Your task to perform on an android device: toggle show notifications on the lock screen Image 0: 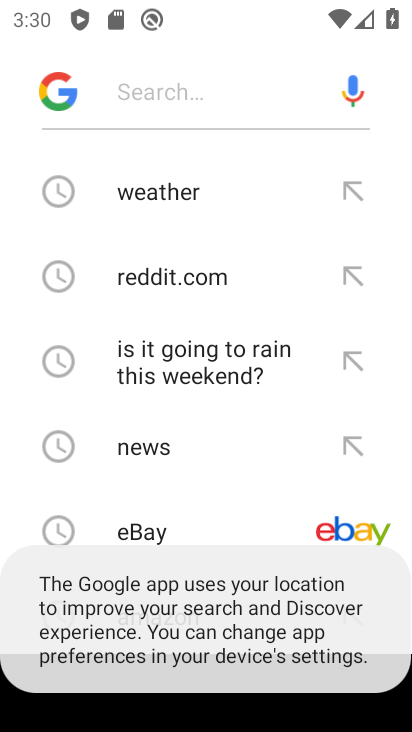
Step 0: press home button
Your task to perform on an android device: toggle show notifications on the lock screen Image 1: 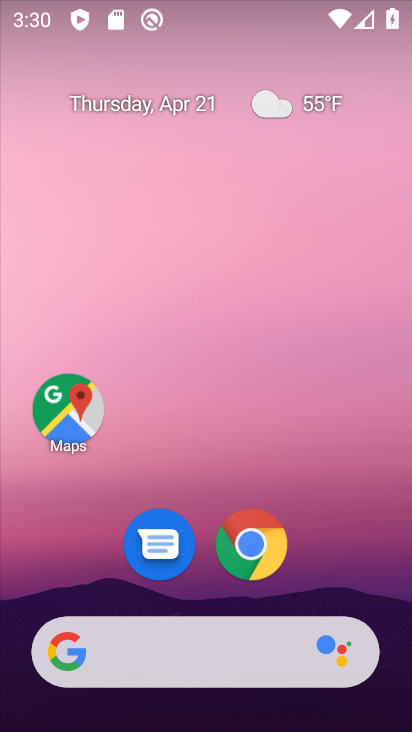
Step 1: drag from (244, 595) to (241, 56)
Your task to perform on an android device: toggle show notifications on the lock screen Image 2: 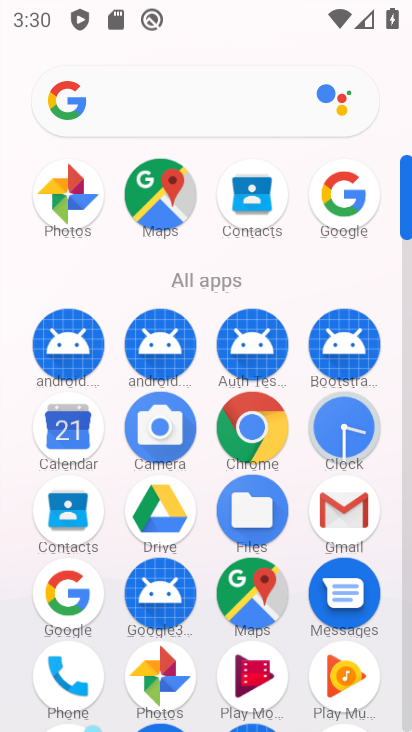
Step 2: drag from (174, 601) to (188, 151)
Your task to perform on an android device: toggle show notifications on the lock screen Image 3: 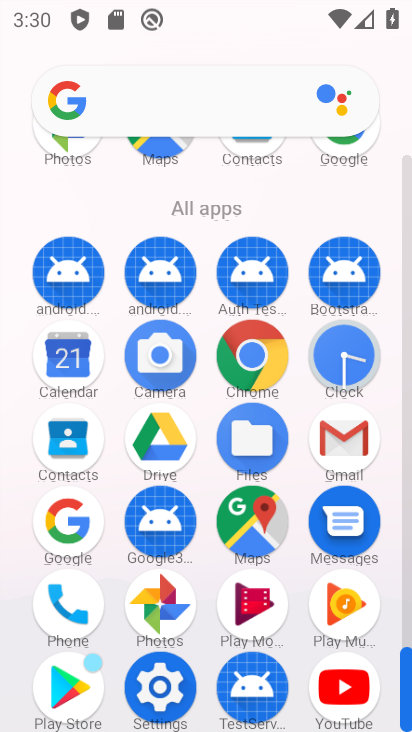
Step 3: click (170, 680)
Your task to perform on an android device: toggle show notifications on the lock screen Image 4: 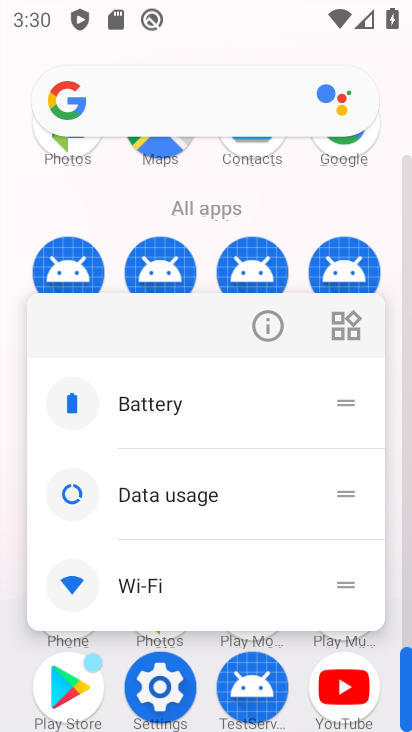
Step 4: click (170, 680)
Your task to perform on an android device: toggle show notifications on the lock screen Image 5: 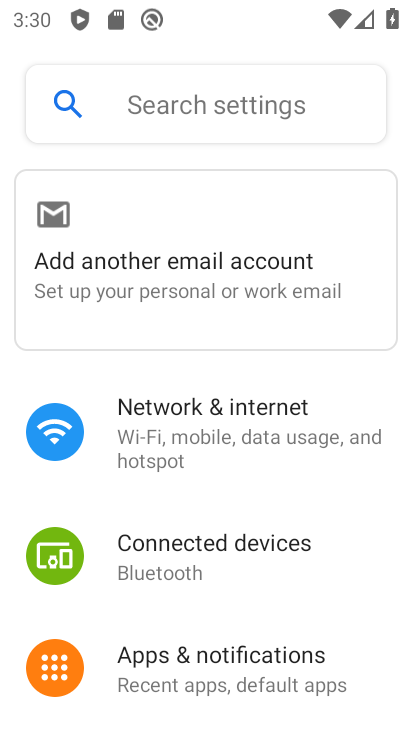
Step 5: drag from (202, 616) to (263, 276)
Your task to perform on an android device: toggle show notifications on the lock screen Image 6: 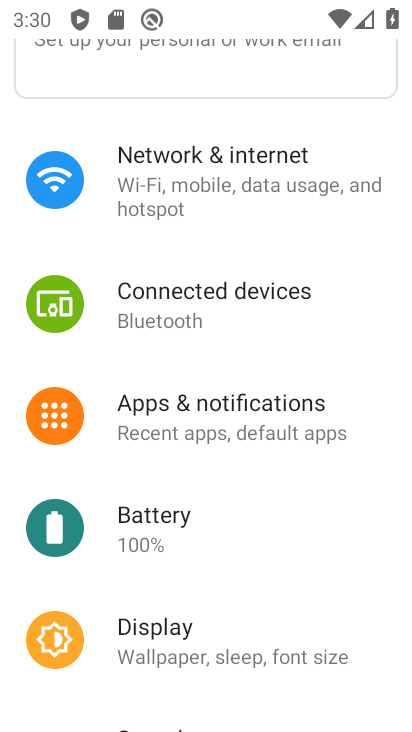
Step 6: click (99, 425)
Your task to perform on an android device: toggle show notifications on the lock screen Image 7: 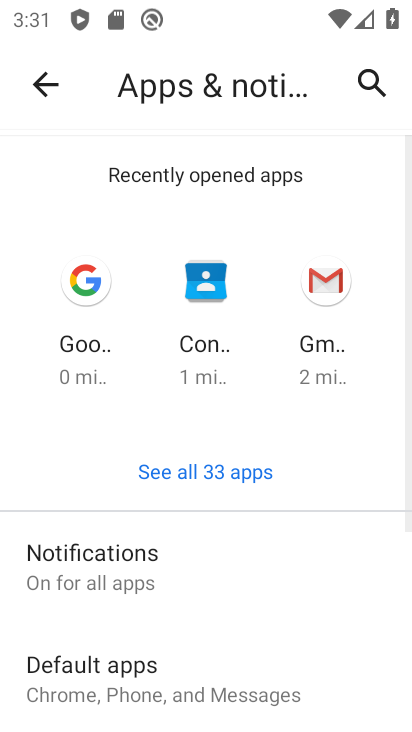
Step 7: click (168, 579)
Your task to perform on an android device: toggle show notifications on the lock screen Image 8: 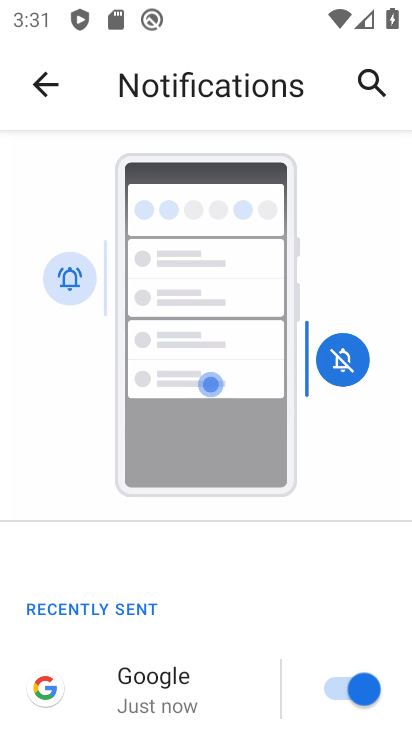
Step 8: drag from (254, 630) to (284, 45)
Your task to perform on an android device: toggle show notifications on the lock screen Image 9: 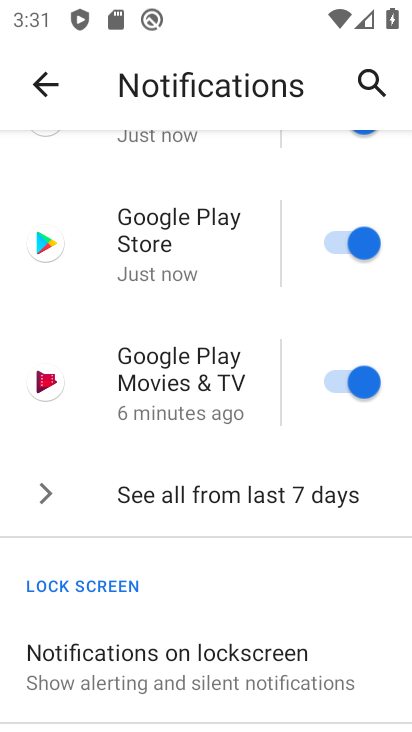
Step 9: click (221, 663)
Your task to perform on an android device: toggle show notifications on the lock screen Image 10: 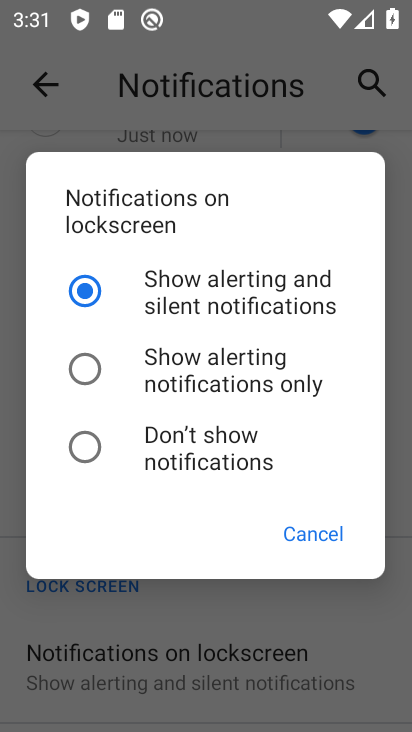
Step 10: click (161, 478)
Your task to perform on an android device: toggle show notifications on the lock screen Image 11: 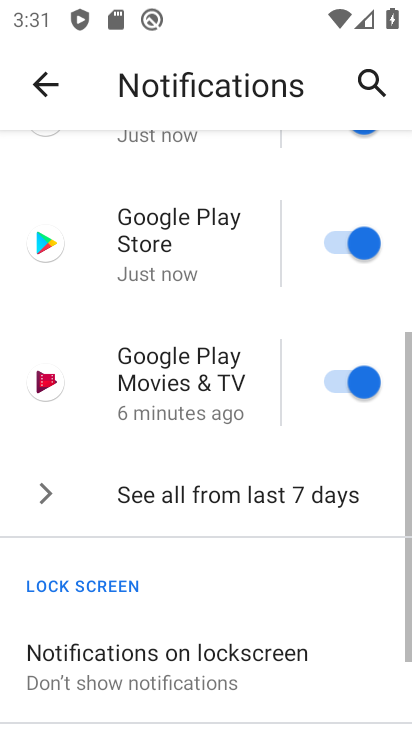
Step 11: task complete